Your task to perform on an android device: Go to Yahoo.com Image 0: 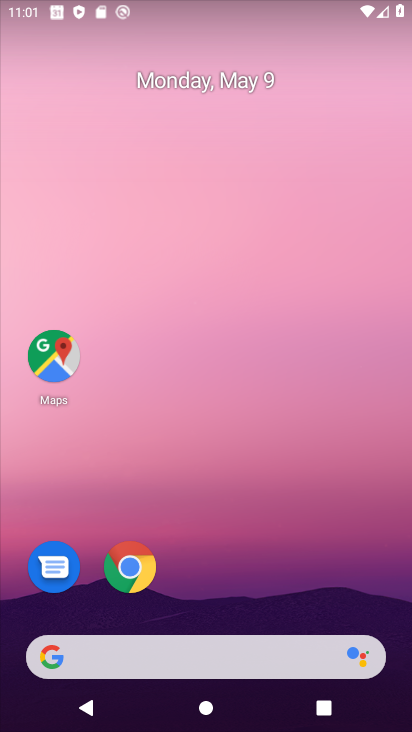
Step 0: drag from (398, 620) to (277, 79)
Your task to perform on an android device: Go to Yahoo.com Image 1: 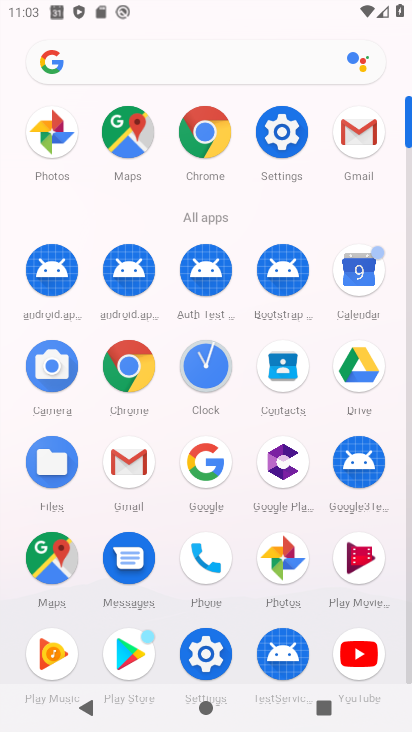
Step 1: click (147, 364)
Your task to perform on an android device: Go to Yahoo.com Image 2: 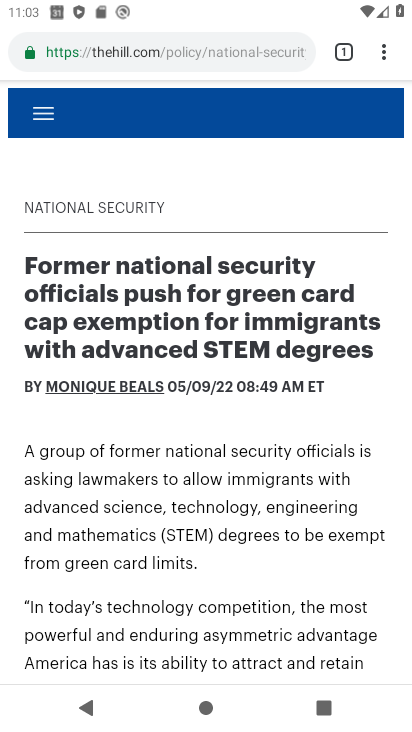
Step 2: press back button
Your task to perform on an android device: Go to Yahoo.com Image 3: 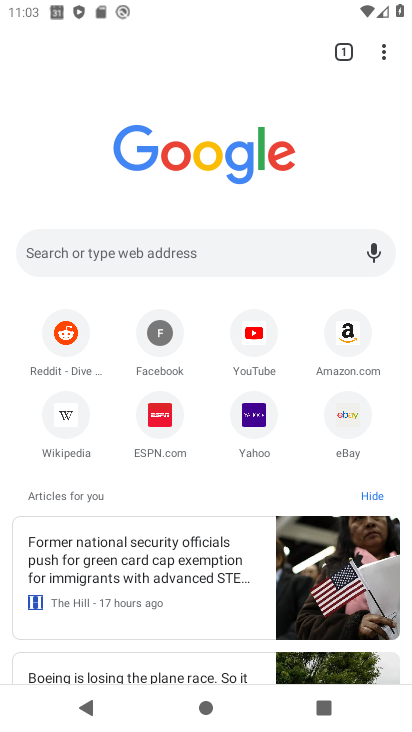
Step 3: click (250, 412)
Your task to perform on an android device: Go to Yahoo.com Image 4: 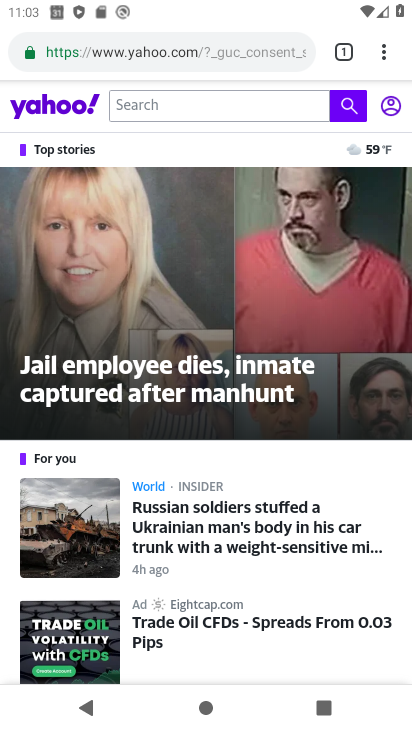
Step 4: task complete